Your task to perform on an android device: Show me the alarms in the clock app Image 0: 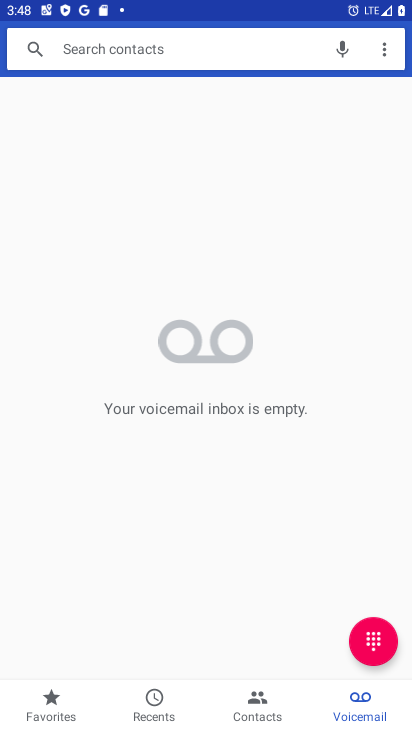
Step 0: drag from (132, 630) to (152, 95)
Your task to perform on an android device: Show me the alarms in the clock app Image 1: 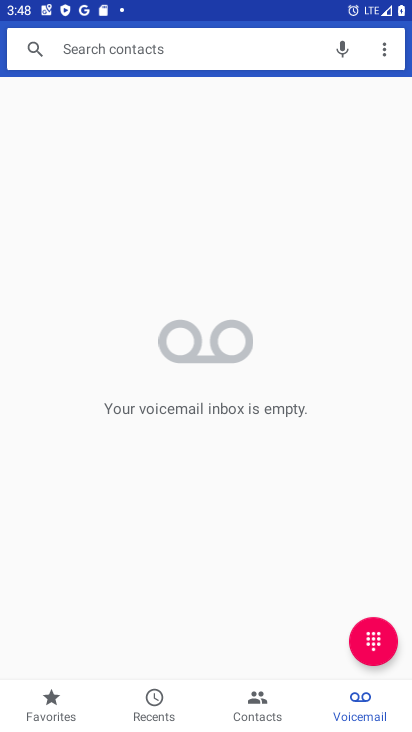
Step 1: press home button
Your task to perform on an android device: Show me the alarms in the clock app Image 2: 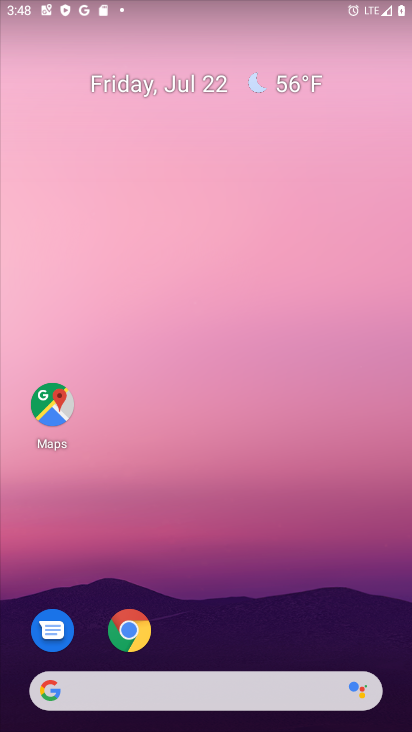
Step 2: drag from (199, 672) to (154, 17)
Your task to perform on an android device: Show me the alarms in the clock app Image 3: 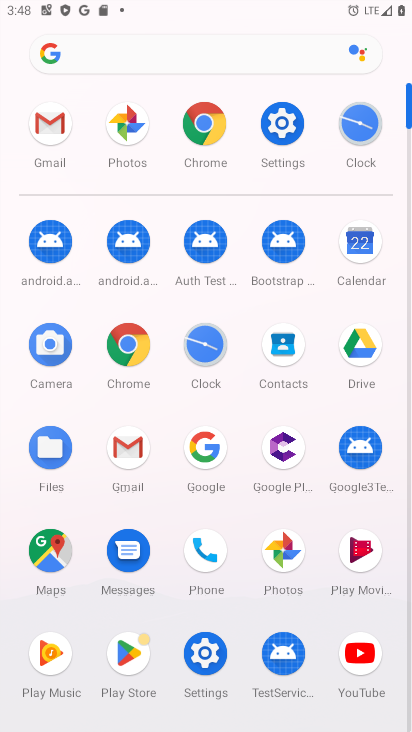
Step 3: click (219, 338)
Your task to perform on an android device: Show me the alarms in the clock app Image 4: 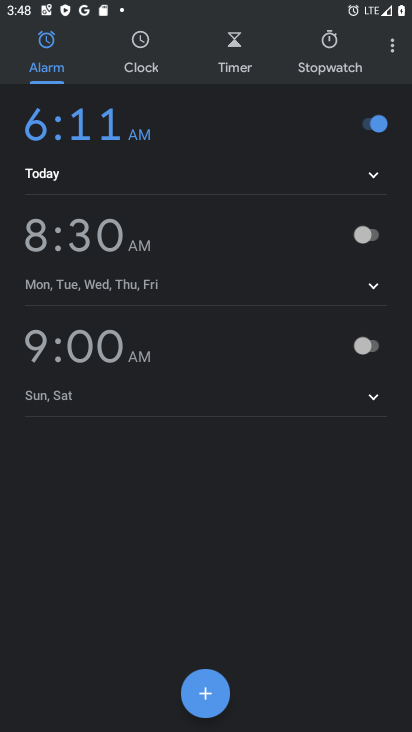
Step 4: task complete